Your task to perform on an android device: Search for vegetarian restaurants on Maps Image 0: 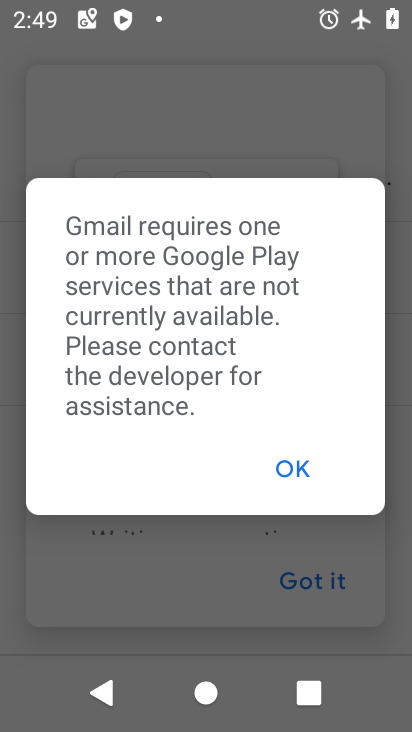
Step 0: press home button
Your task to perform on an android device: Search for vegetarian restaurants on Maps Image 1: 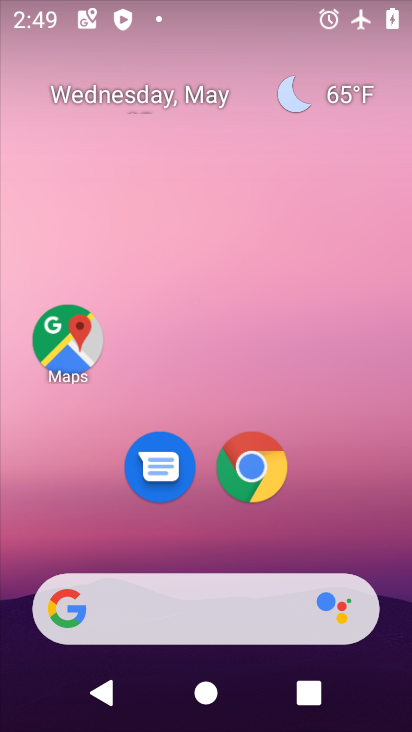
Step 1: click (57, 320)
Your task to perform on an android device: Search for vegetarian restaurants on Maps Image 2: 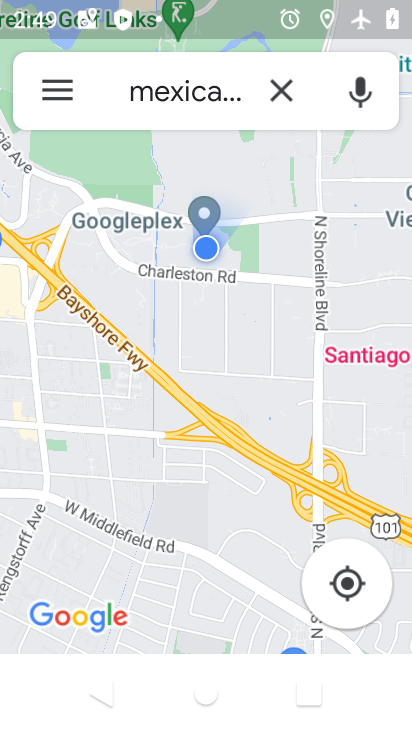
Step 2: click (283, 99)
Your task to perform on an android device: Search for vegetarian restaurants on Maps Image 3: 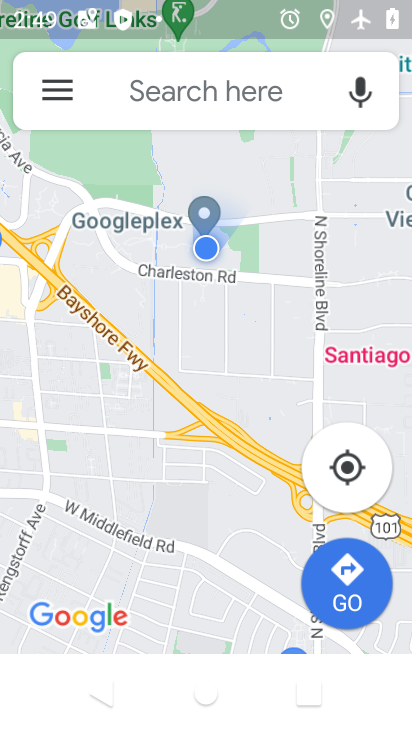
Step 3: click (218, 82)
Your task to perform on an android device: Search for vegetarian restaurants on Maps Image 4: 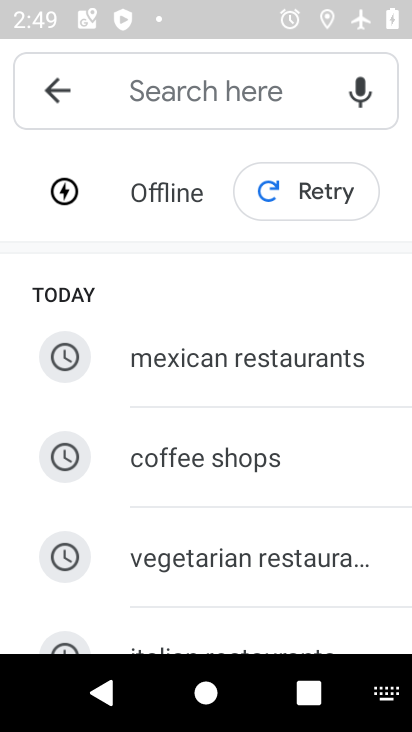
Step 4: click (193, 547)
Your task to perform on an android device: Search for vegetarian restaurants on Maps Image 5: 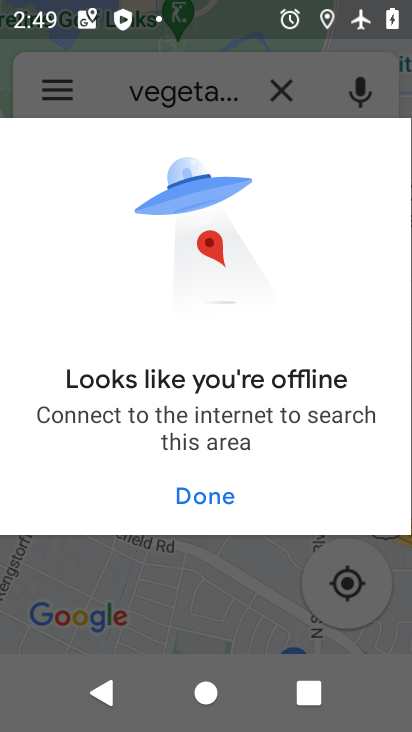
Step 5: click (197, 495)
Your task to perform on an android device: Search for vegetarian restaurants on Maps Image 6: 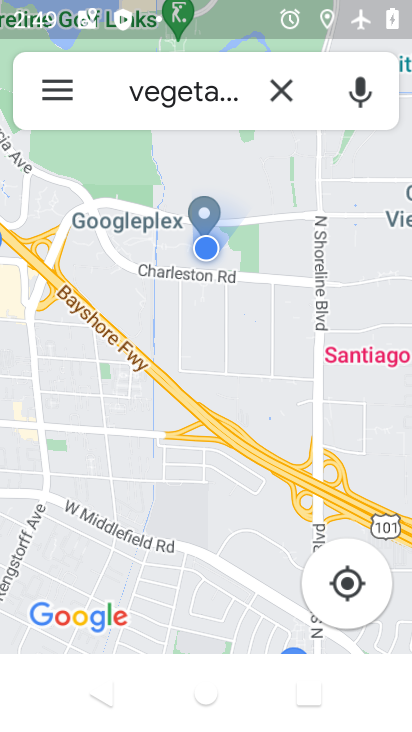
Step 6: task complete